Your task to perform on an android device: Search for "rayovac triple a" on newegg, select the first entry, add it to the cart, then select checkout. Image 0: 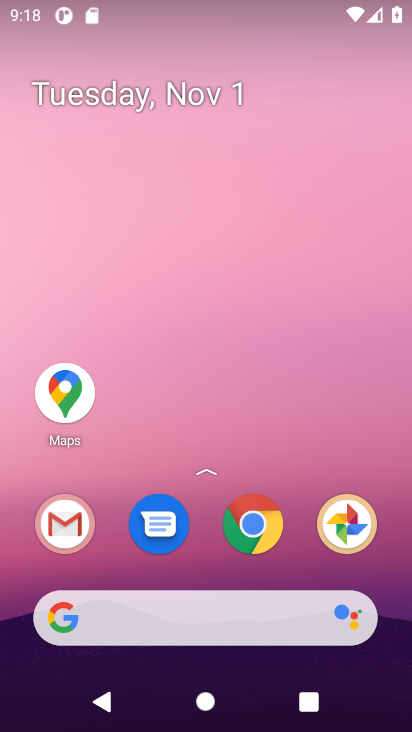
Step 0: press home button
Your task to perform on an android device: Search for "rayovac triple a" on newegg, select the first entry, add it to the cart, then select checkout. Image 1: 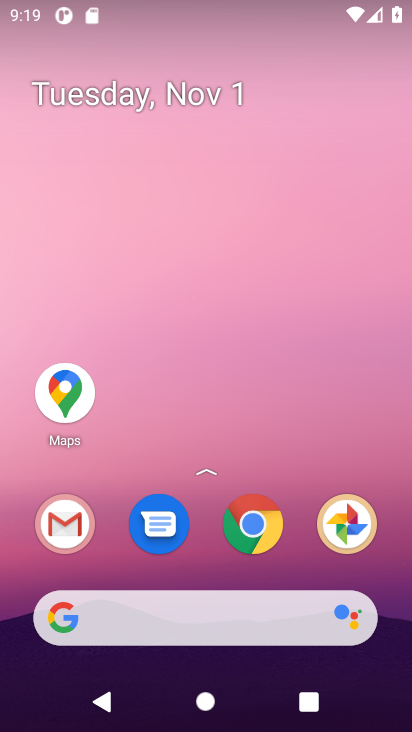
Step 1: click (105, 610)
Your task to perform on an android device: Search for "rayovac triple a" on newegg, select the first entry, add it to the cart, then select checkout. Image 2: 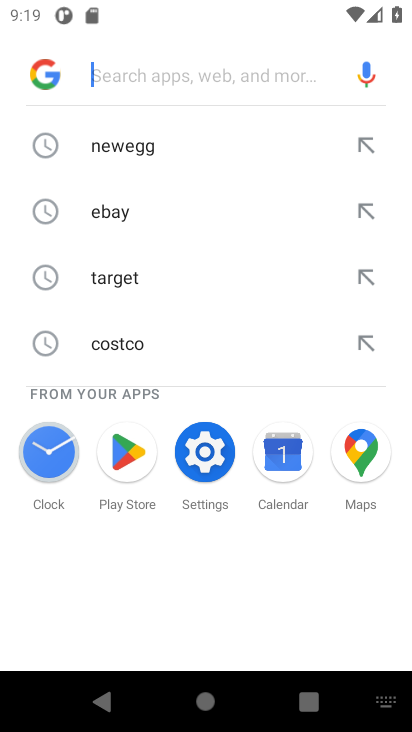
Step 2: type "newegg"
Your task to perform on an android device: Search for "rayovac triple a" on newegg, select the first entry, add it to the cart, then select checkout. Image 3: 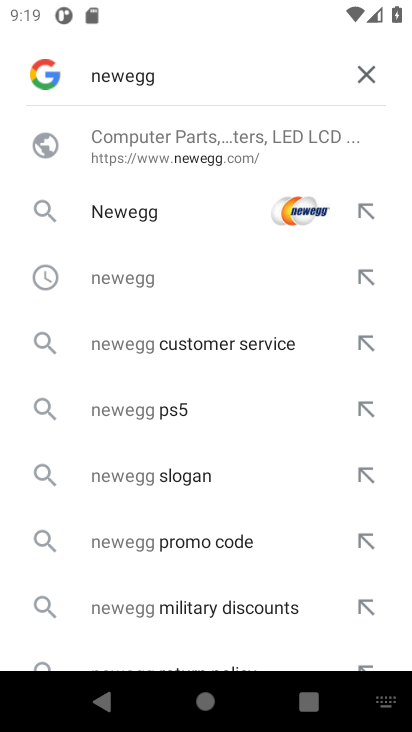
Step 3: press enter
Your task to perform on an android device: Search for "rayovac triple a" on newegg, select the first entry, add it to the cart, then select checkout. Image 4: 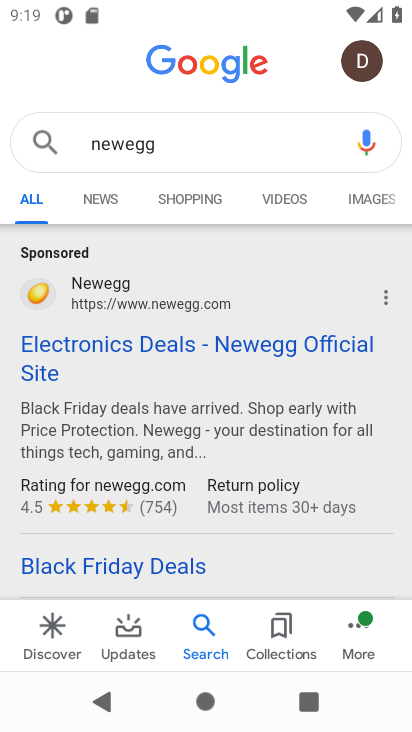
Step 4: click (147, 348)
Your task to perform on an android device: Search for "rayovac triple a" on newegg, select the first entry, add it to the cart, then select checkout. Image 5: 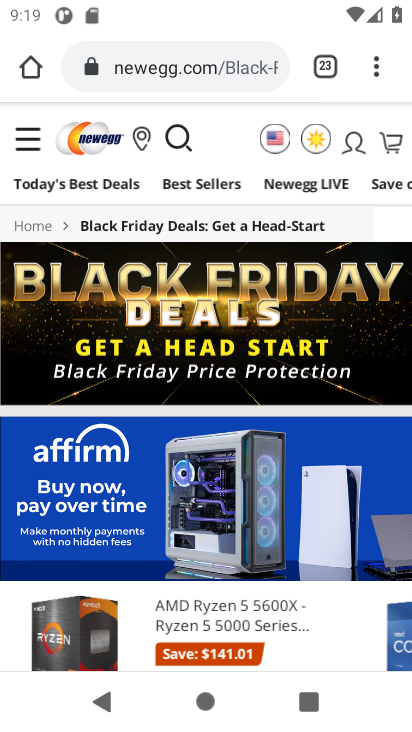
Step 5: click (170, 133)
Your task to perform on an android device: Search for "rayovac triple a" on newegg, select the first entry, add it to the cart, then select checkout. Image 6: 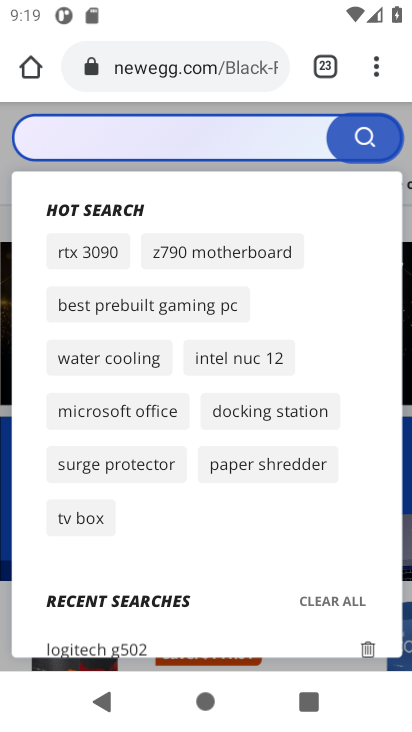
Step 6: click (91, 140)
Your task to perform on an android device: Search for "rayovac triple a" on newegg, select the first entry, add it to the cart, then select checkout. Image 7: 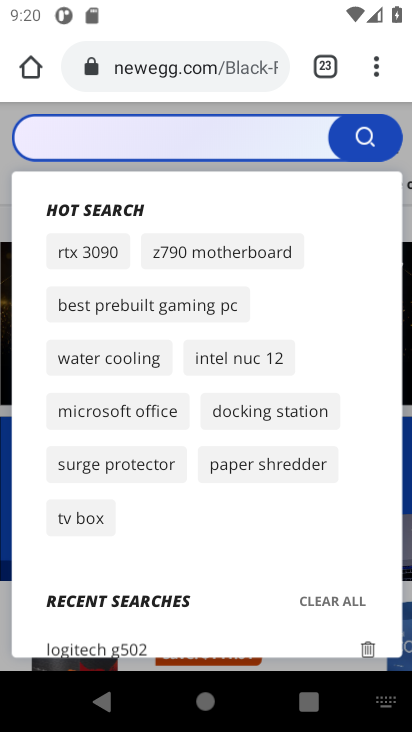
Step 7: type "rayovac triple a"
Your task to perform on an android device: Search for "rayovac triple a" on newegg, select the first entry, add it to the cart, then select checkout. Image 8: 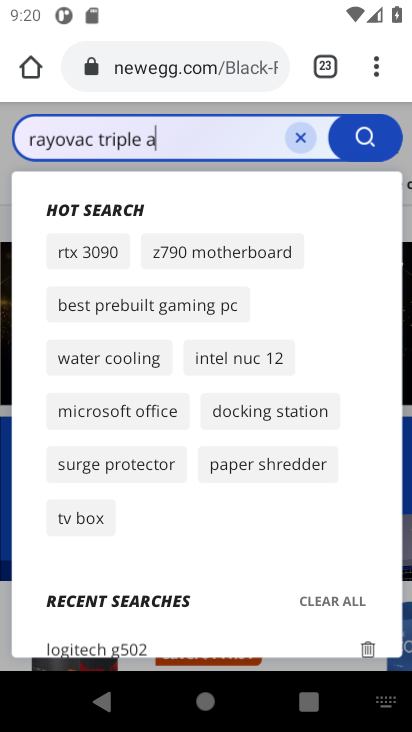
Step 8: press enter
Your task to perform on an android device: Search for "rayovac triple a" on newegg, select the first entry, add it to the cart, then select checkout. Image 9: 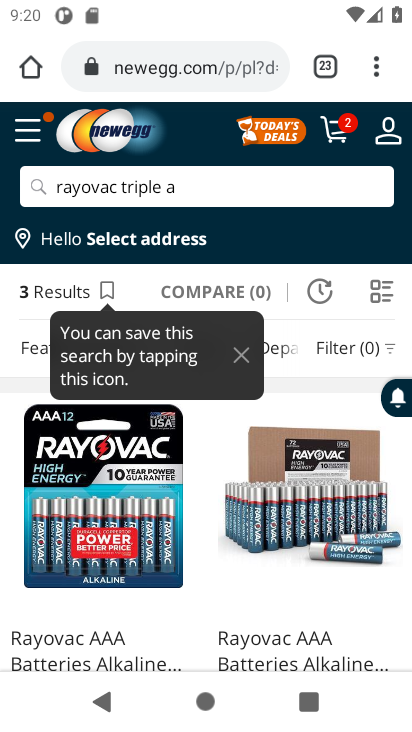
Step 9: click (239, 354)
Your task to perform on an android device: Search for "rayovac triple a" on newegg, select the first entry, add it to the cart, then select checkout. Image 10: 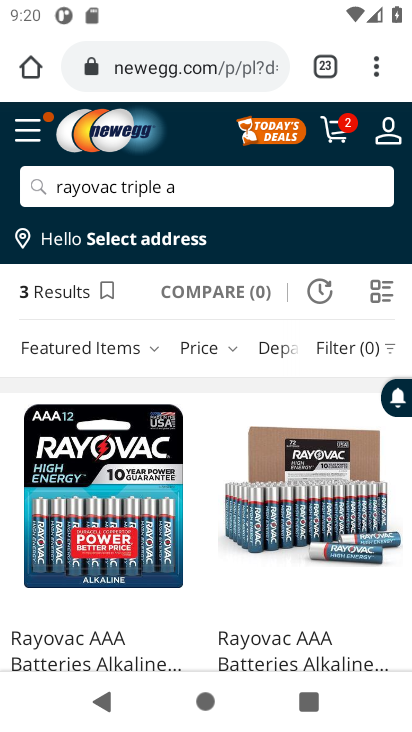
Step 10: drag from (236, 603) to (216, 382)
Your task to perform on an android device: Search for "rayovac triple a" on newegg, select the first entry, add it to the cart, then select checkout. Image 11: 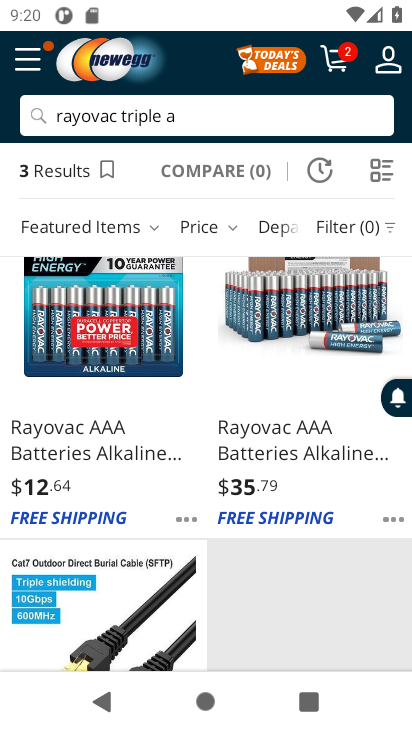
Step 11: click (65, 438)
Your task to perform on an android device: Search for "rayovac triple a" on newegg, select the first entry, add it to the cart, then select checkout. Image 12: 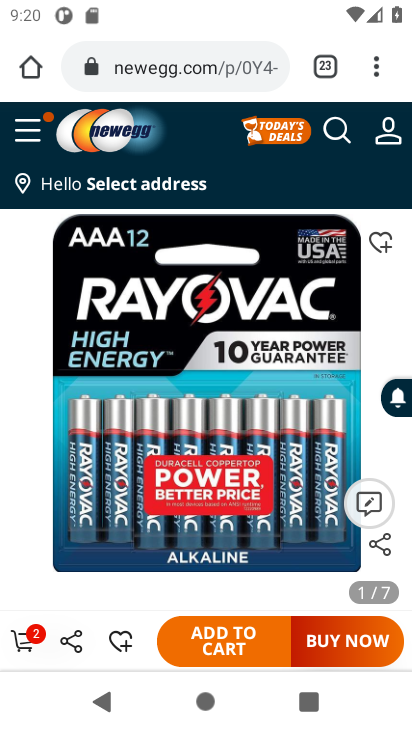
Step 12: click (221, 631)
Your task to perform on an android device: Search for "rayovac triple a" on newegg, select the first entry, add it to the cart, then select checkout. Image 13: 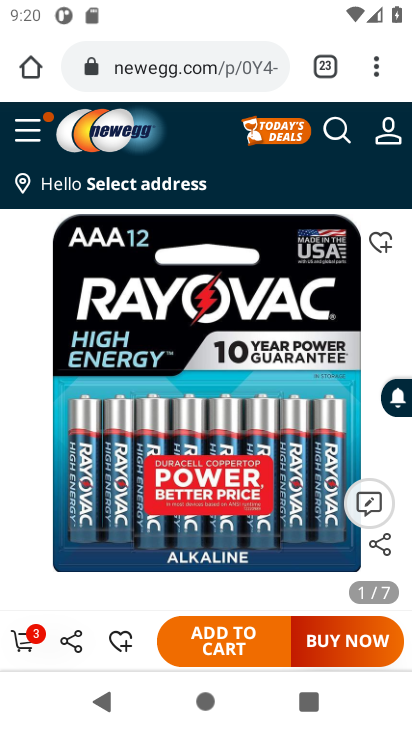
Step 13: click (21, 641)
Your task to perform on an android device: Search for "rayovac triple a" on newegg, select the first entry, add it to the cart, then select checkout. Image 14: 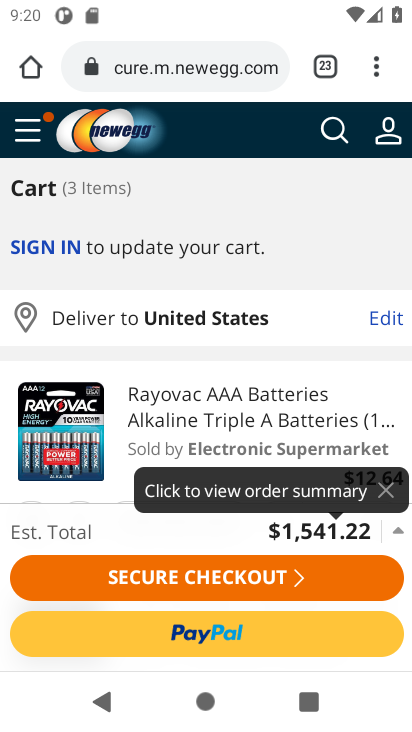
Step 14: click (206, 575)
Your task to perform on an android device: Search for "rayovac triple a" on newegg, select the first entry, add it to the cart, then select checkout. Image 15: 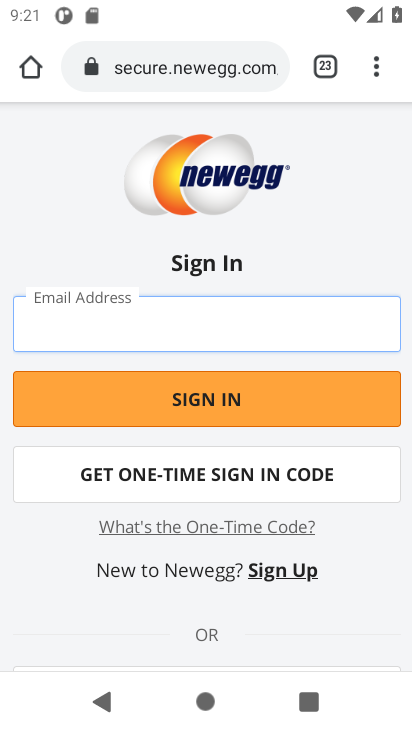
Step 15: task complete